Your task to perform on an android device: set the timer Image 0: 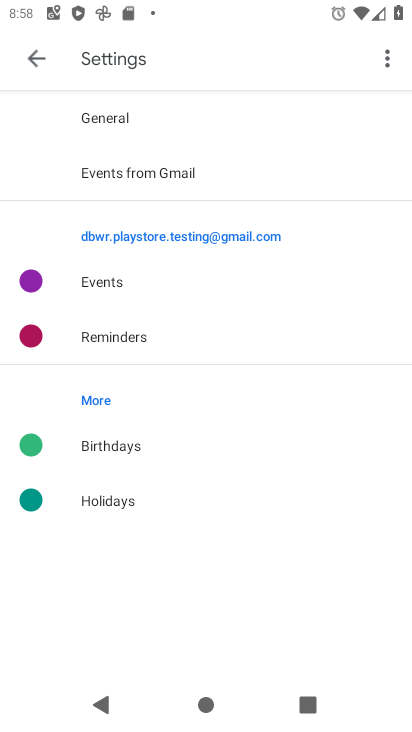
Step 0: press home button
Your task to perform on an android device: set the timer Image 1: 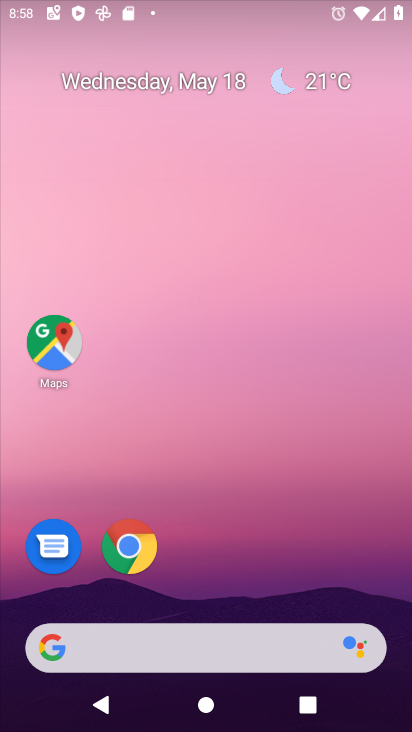
Step 1: drag from (412, 642) to (288, 35)
Your task to perform on an android device: set the timer Image 2: 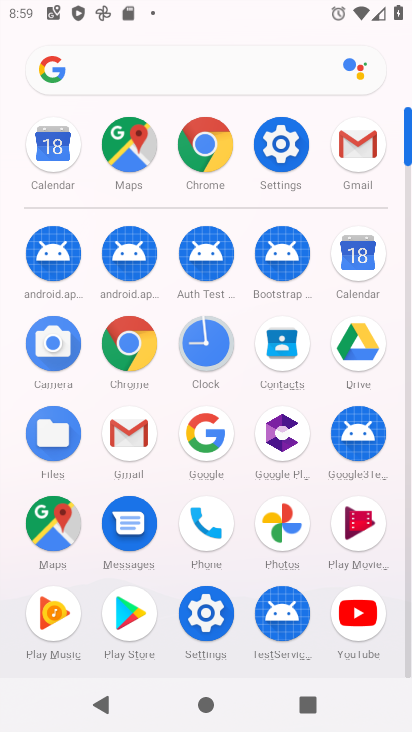
Step 2: click (208, 359)
Your task to perform on an android device: set the timer Image 3: 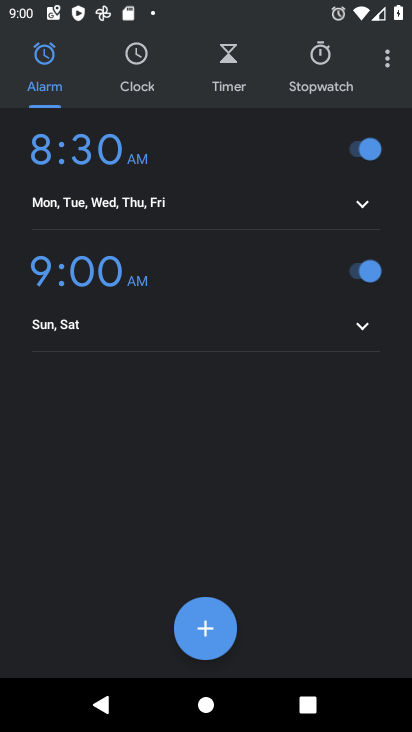
Step 3: click (393, 62)
Your task to perform on an android device: set the timer Image 4: 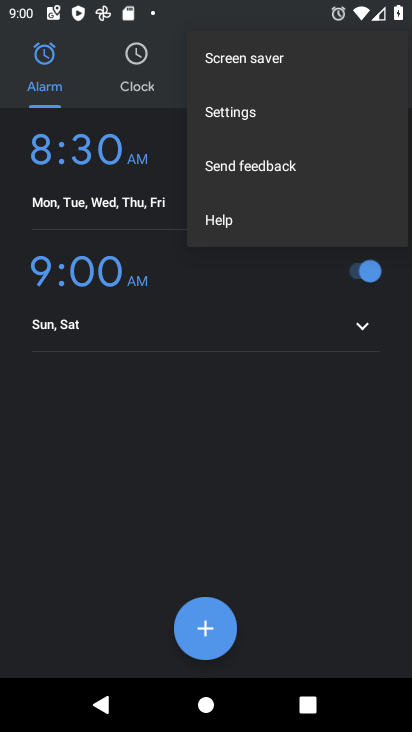
Step 4: click (270, 111)
Your task to perform on an android device: set the timer Image 5: 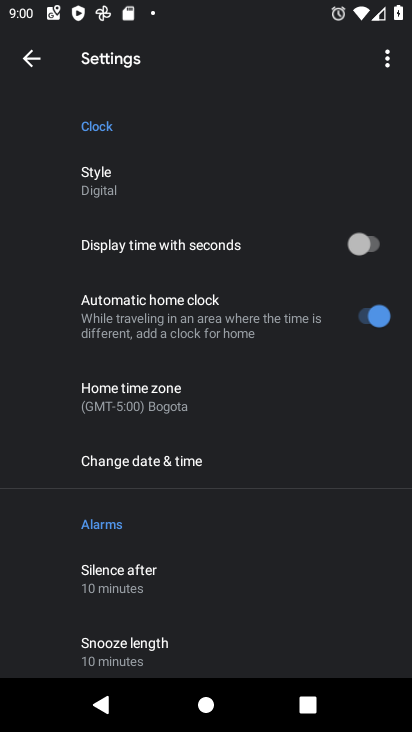
Step 5: click (179, 419)
Your task to perform on an android device: set the timer Image 6: 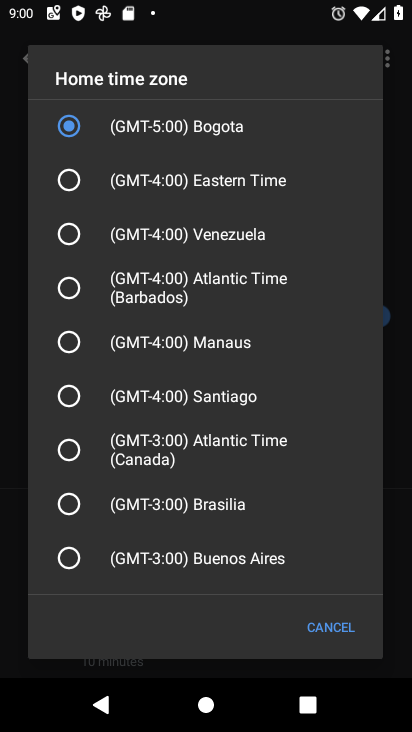
Step 6: click (183, 329)
Your task to perform on an android device: set the timer Image 7: 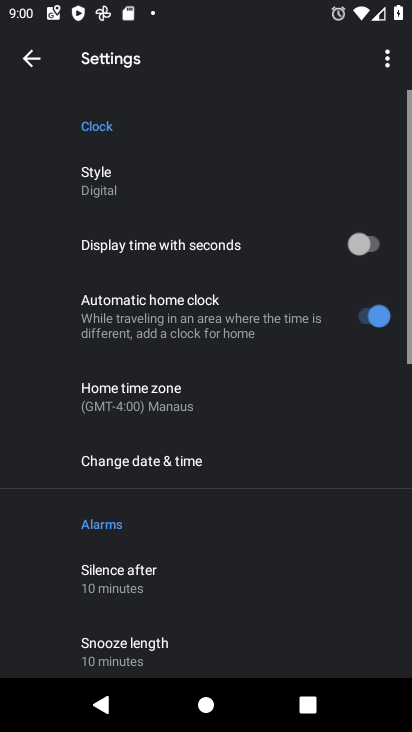
Step 7: task complete